Your task to perform on an android device: open a bookmark in the chrome app Image 0: 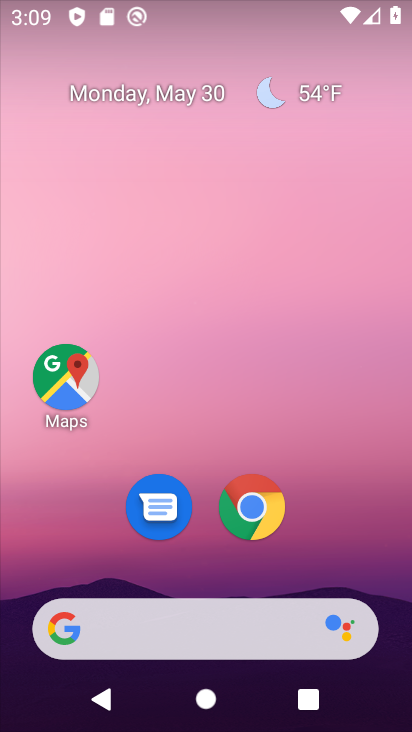
Step 0: click (259, 508)
Your task to perform on an android device: open a bookmark in the chrome app Image 1: 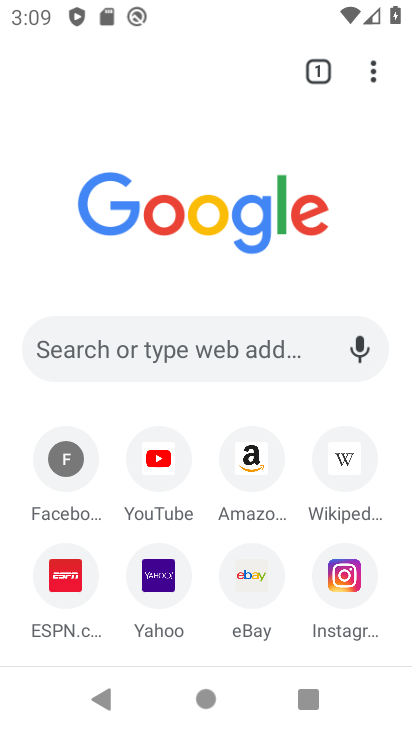
Step 1: task complete